Your task to perform on an android device: Search for pizza restaurants on Maps Image 0: 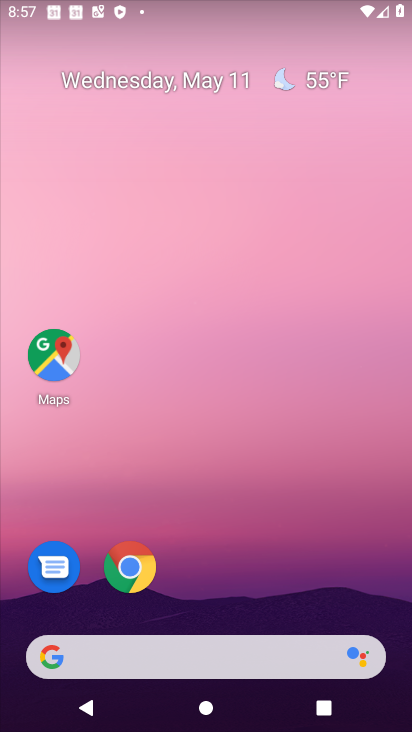
Step 0: click (54, 379)
Your task to perform on an android device: Search for pizza restaurants on Maps Image 1: 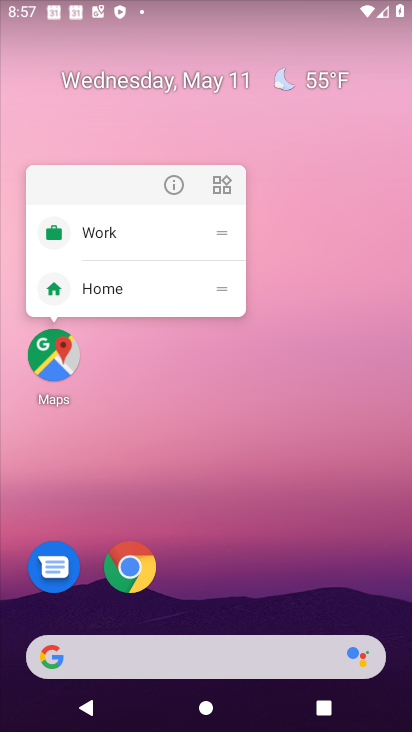
Step 1: click (54, 379)
Your task to perform on an android device: Search for pizza restaurants on Maps Image 2: 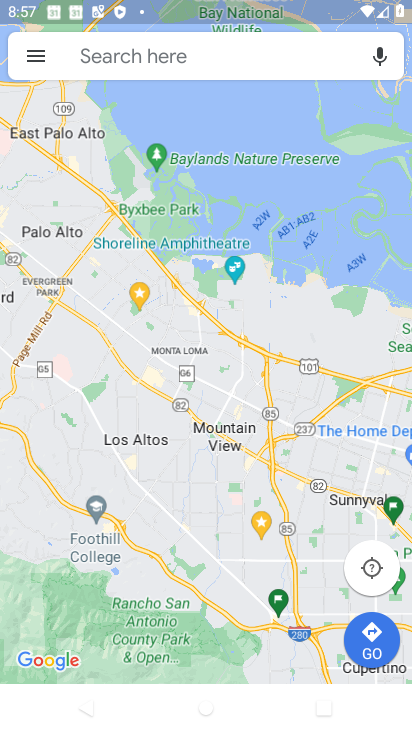
Step 2: click (236, 58)
Your task to perform on an android device: Search for pizza restaurants on Maps Image 3: 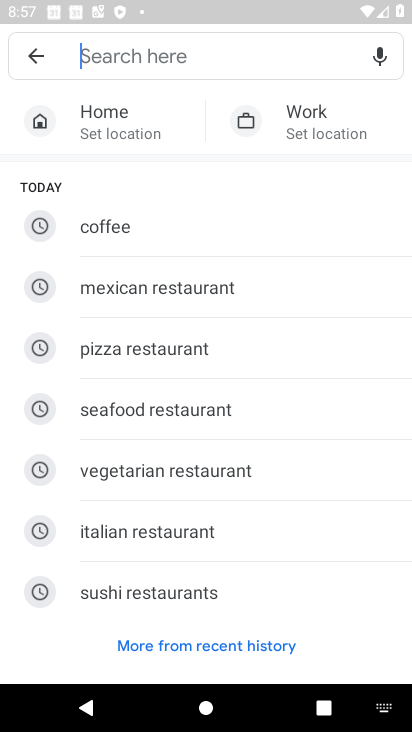
Step 3: type "pizza restaurant"
Your task to perform on an android device: Search for pizza restaurants on Maps Image 4: 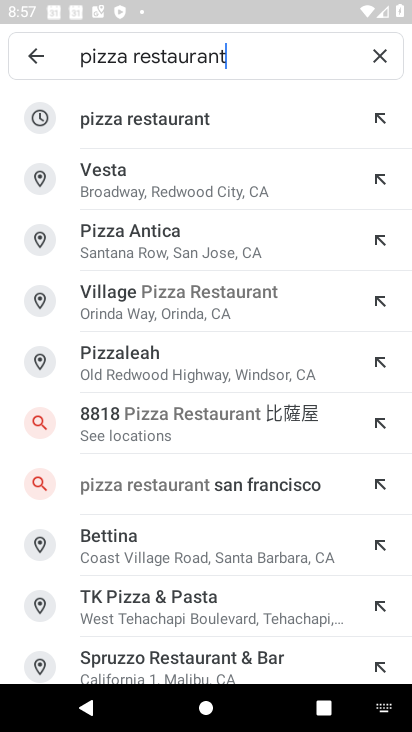
Step 4: click (157, 121)
Your task to perform on an android device: Search for pizza restaurants on Maps Image 5: 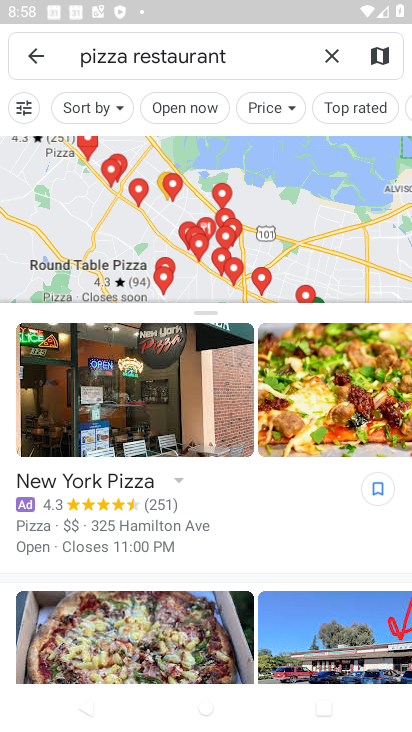
Step 5: task complete